Your task to perform on an android device: set the stopwatch Image 0: 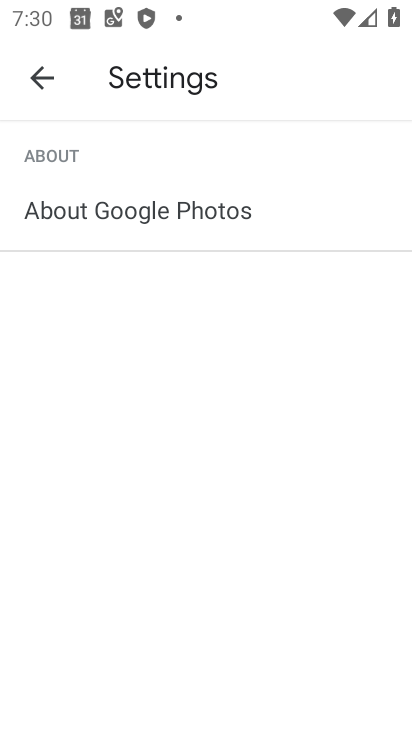
Step 0: press home button
Your task to perform on an android device: set the stopwatch Image 1: 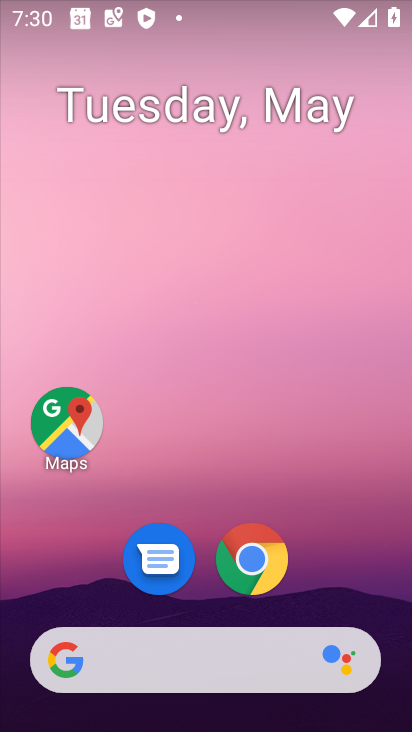
Step 1: drag from (395, 613) to (286, 30)
Your task to perform on an android device: set the stopwatch Image 2: 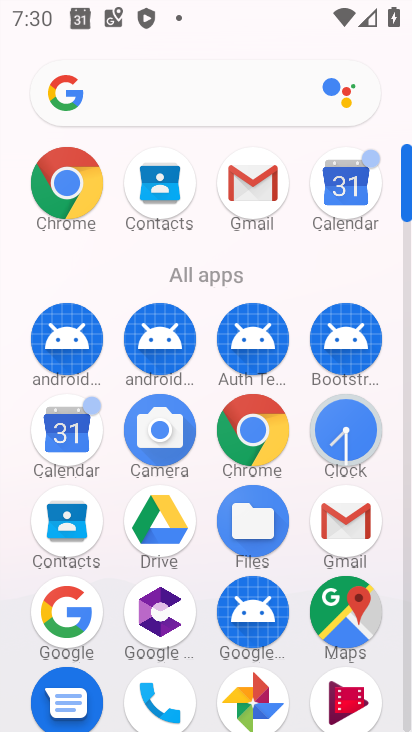
Step 2: click (342, 429)
Your task to perform on an android device: set the stopwatch Image 3: 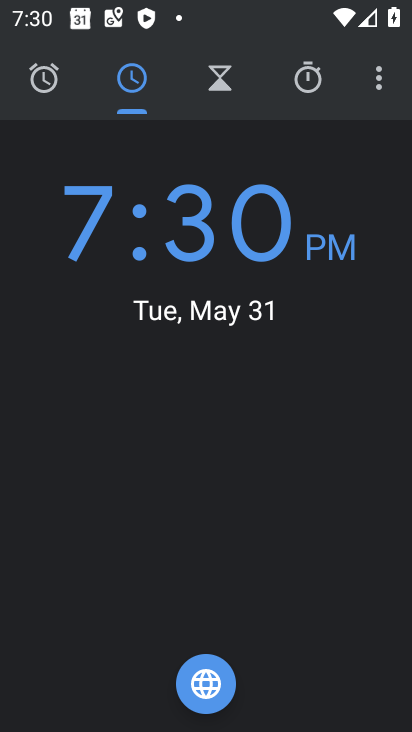
Step 3: click (305, 67)
Your task to perform on an android device: set the stopwatch Image 4: 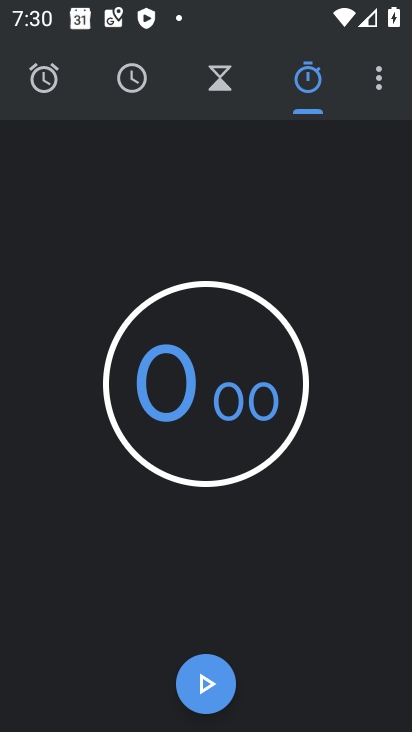
Step 4: click (216, 673)
Your task to perform on an android device: set the stopwatch Image 5: 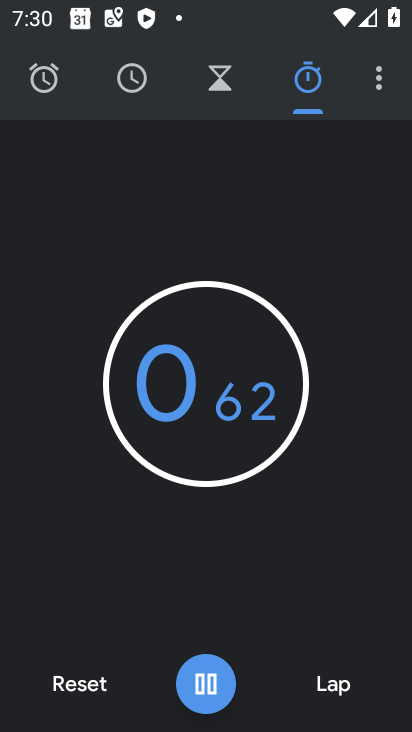
Step 5: click (216, 673)
Your task to perform on an android device: set the stopwatch Image 6: 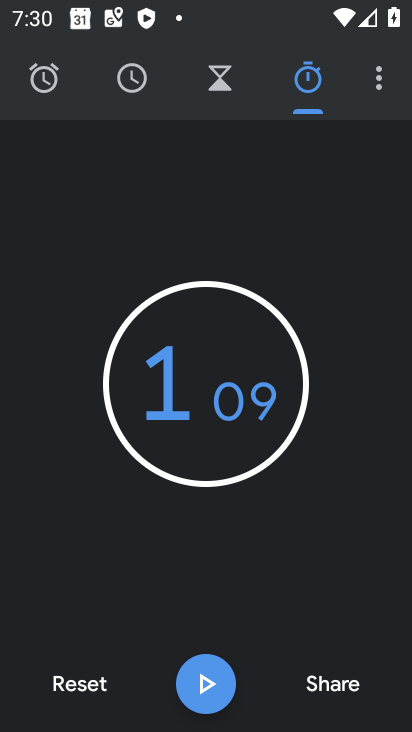
Step 6: task complete